Your task to perform on an android device: Open privacy settings Image 0: 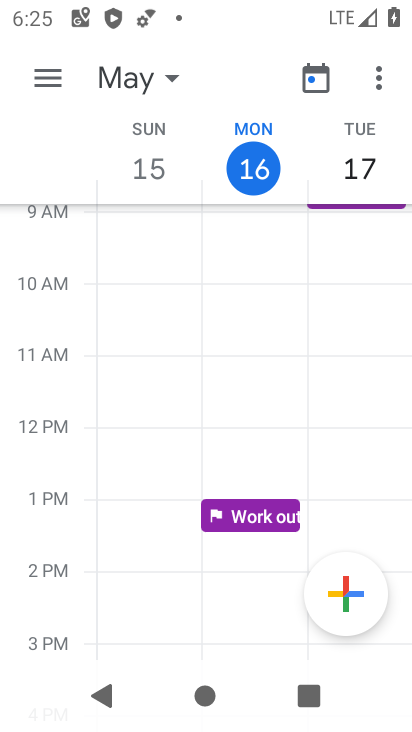
Step 0: press home button
Your task to perform on an android device: Open privacy settings Image 1: 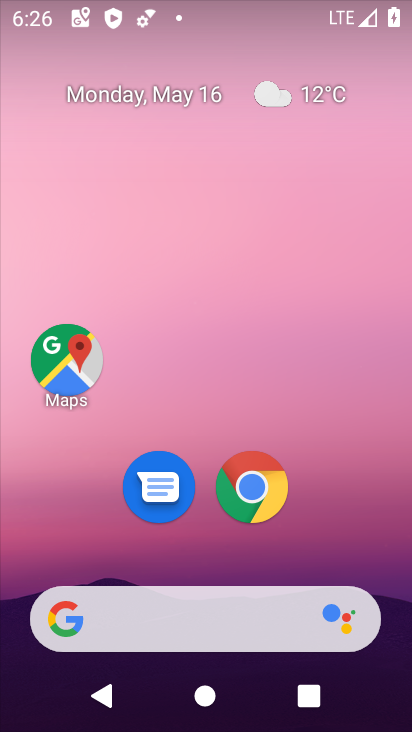
Step 1: drag from (296, 545) to (251, 17)
Your task to perform on an android device: Open privacy settings Image 2: 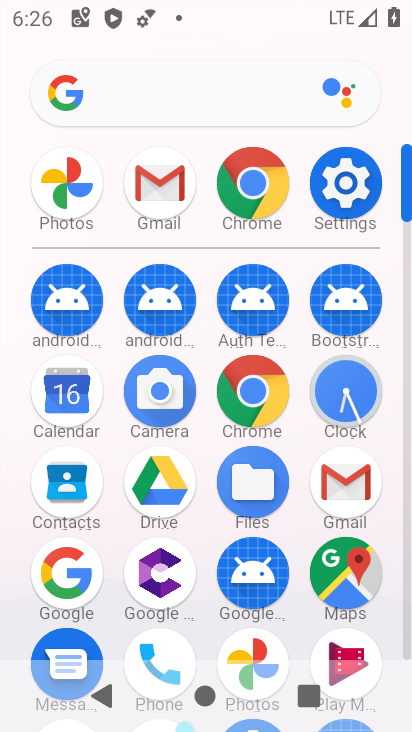
Step 2: click (338, 167)
Your task to perform on an android device: Open privacy settings Image 3: 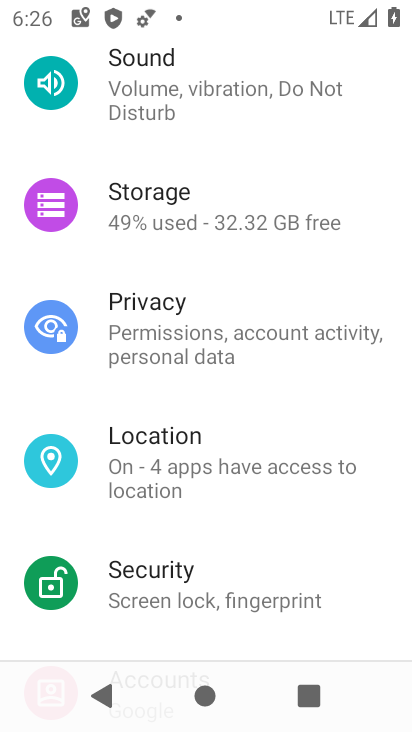
Step 3: drag from (204, 587) to (278, 7)
Your task to perform on an android device: Open privacy settings Image 4: 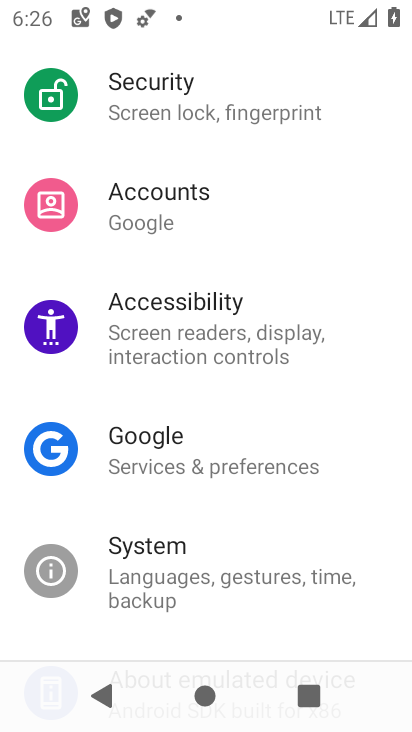
Step 4: drag from (219, 493) to (216, 53)
Your task to perform on an android device: Open privacy settings Image 5: 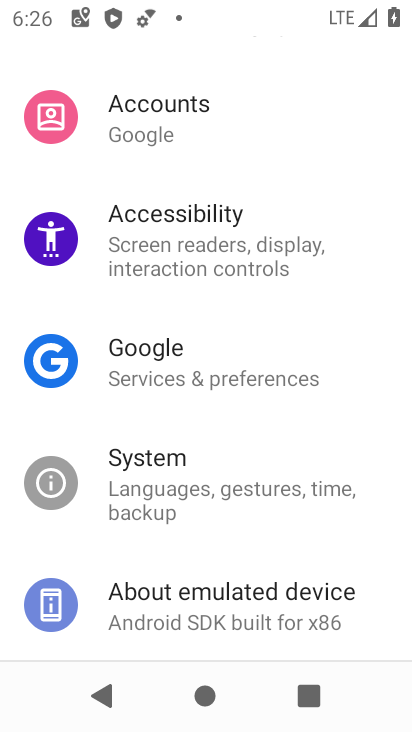
Step 5: drag from (196, 236) to (230, 652)
Your task to perform on an android device: Open privacy settings Image 6: 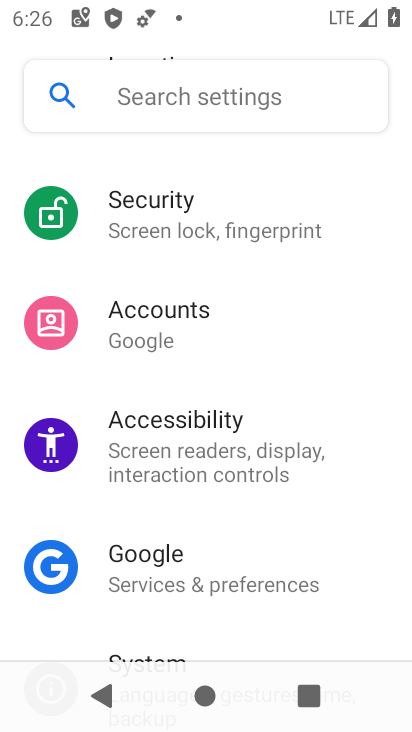
Step 6: drag from (194, 214) to (218, 653)
Your task to perform on an android device: Open privacy settings Image 7: 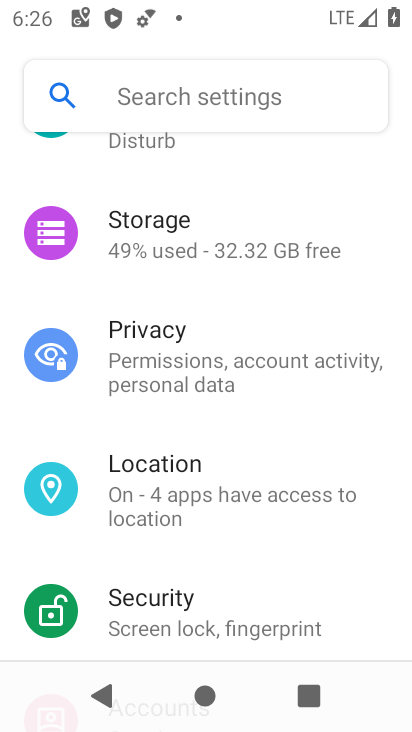
Step 7: click (306, 354)
Your task to perform on an android device: Open privacy settings Image 8: 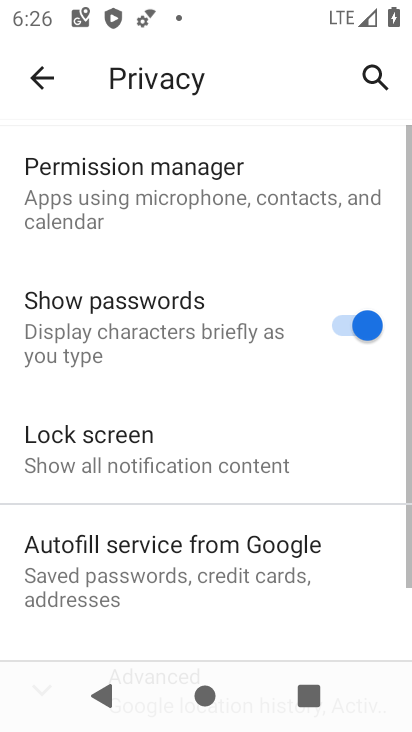
Step 8: task complete